Your task to perform on an android device: change the upload size in google photos Image 0: 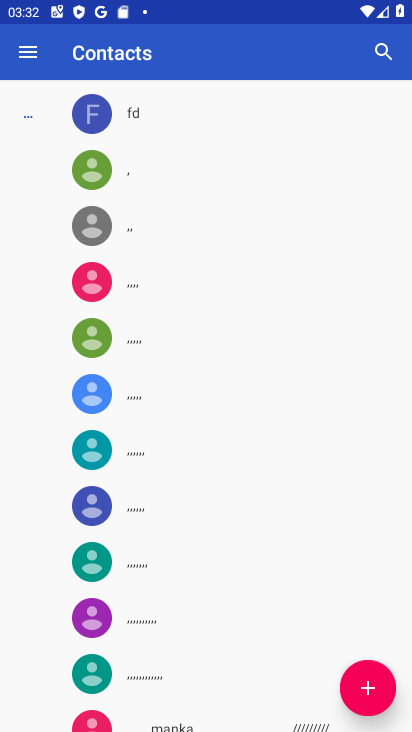
Step 0: press home button
Your task to perform on an android device: change the upload size in google photos Image 1: 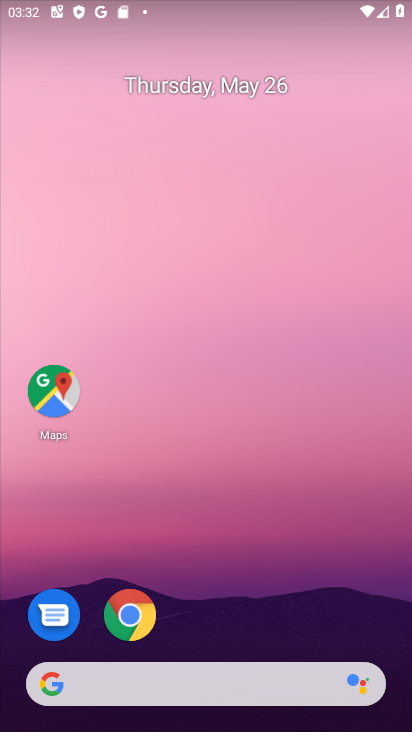
Step 1: drag from (232, 611) to (218, 109)
Your task to perform on an android device: change the upload size in google photos Image 2: 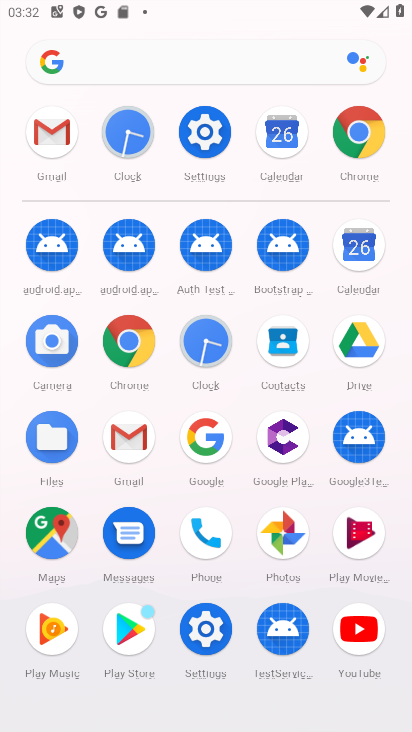
Step 2: click (280, 534)
Your task to perform on an android device: change the upload size in google photos Image 3: 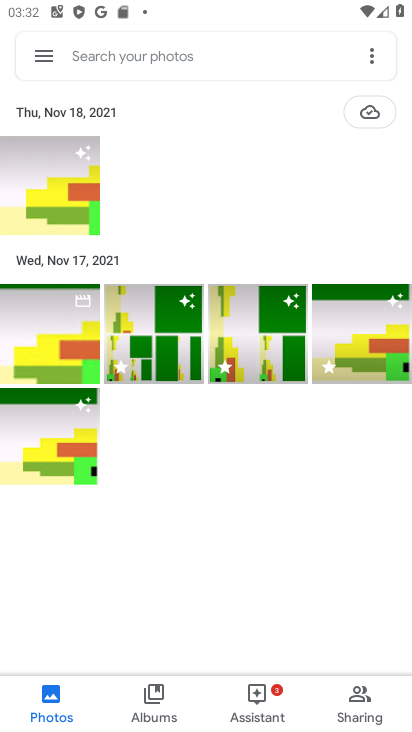
Step 3: click (43, 54)
Your task to perform on an android device: change the upload size in google photos Image 4: 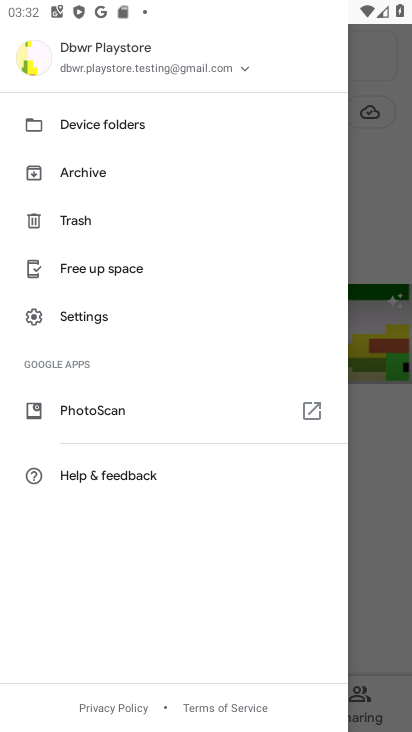
Step 4: click (93, 325)
Your task to perform on an android device: change the upload size in google photos Image 5: 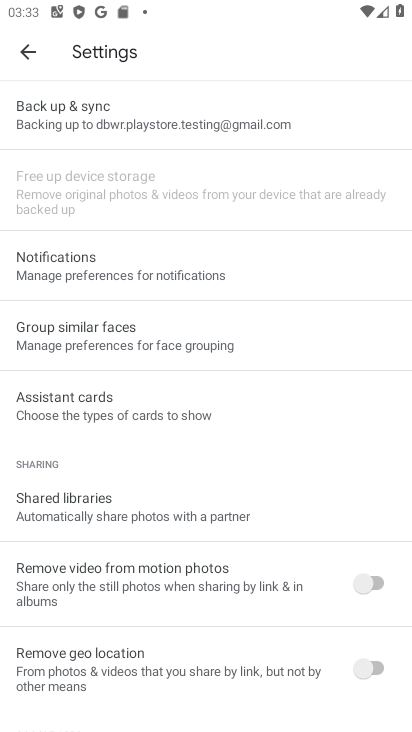
Step 5: click (73, 124)
Your task to perform on an android device: change the upload size in google photos Image 6: 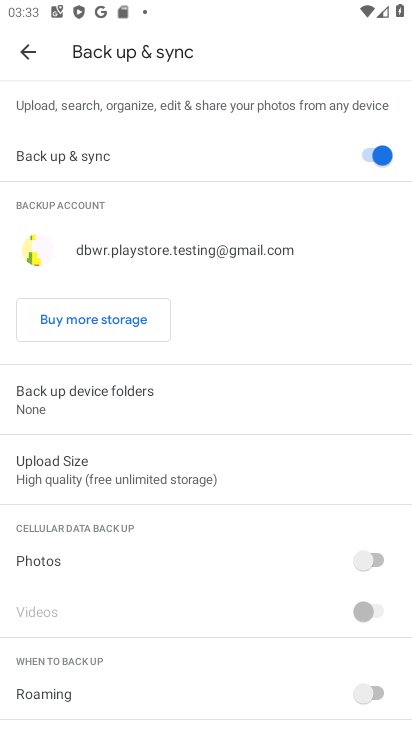
Step 6: click (65, 489)
Your task to perform on an android device: change the upload size in google photos Image 7: 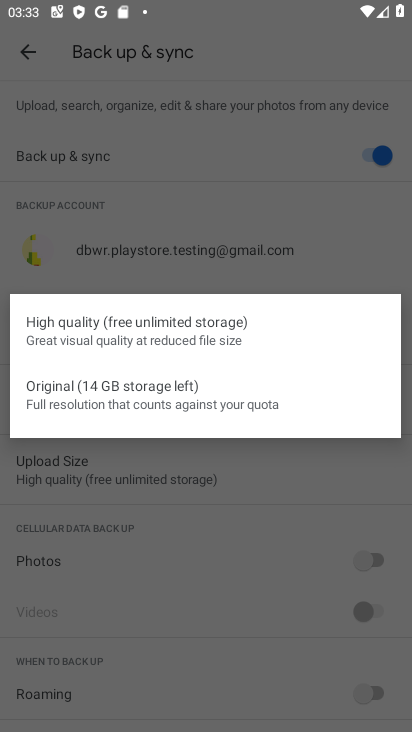
Step 7: click (89, 413)
Your task to perform on an android device: change the upload size in google photos Image 8: 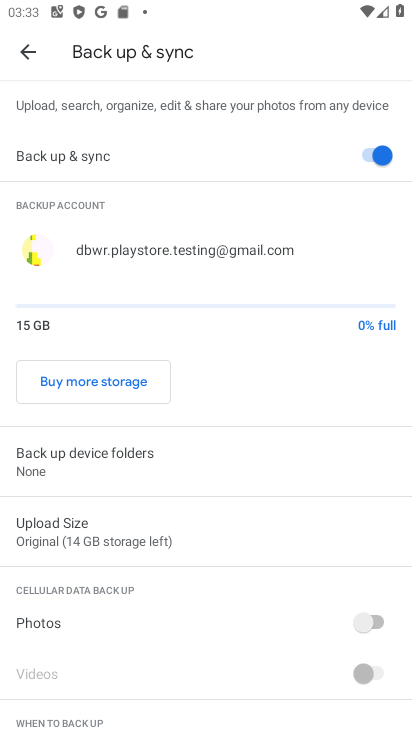
Step 8: task complete